Your task to perform on an android device: clear history in the chrome app Image 0: 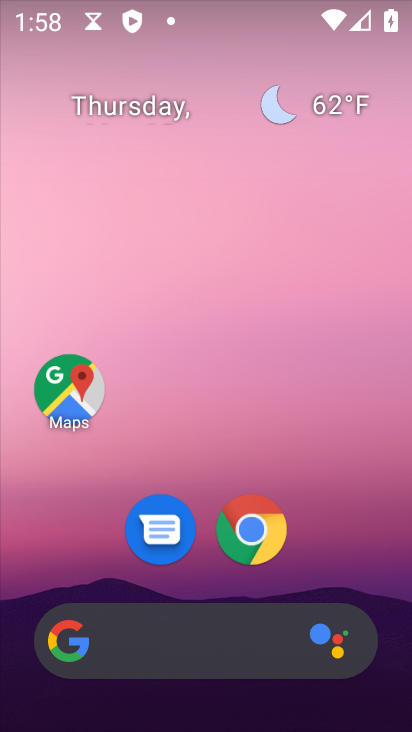
Step 0: click (254, 526)
Your task to perform on an android device: clear history in the chrome app Image 1: 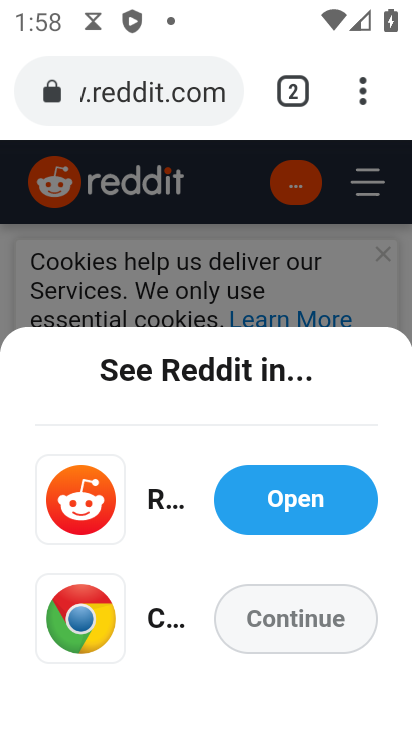
Step 1: click (364, 88)
Your task to perform on an android device: clear history in the chrome app Image 2: 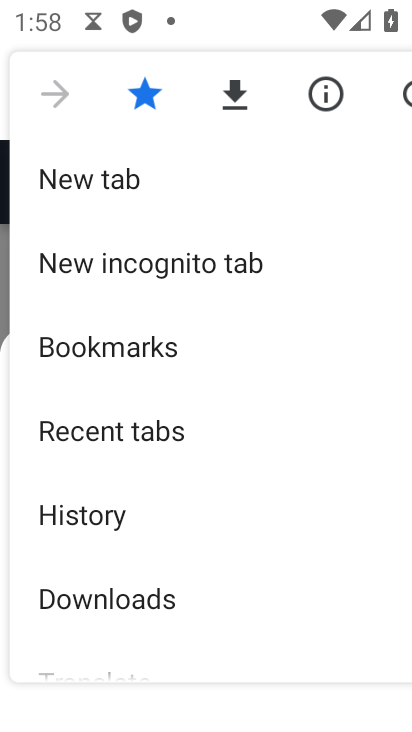
Step 2: click (119, 512)
Your task to perform on an android device: clear history in the chrome app Image 3: 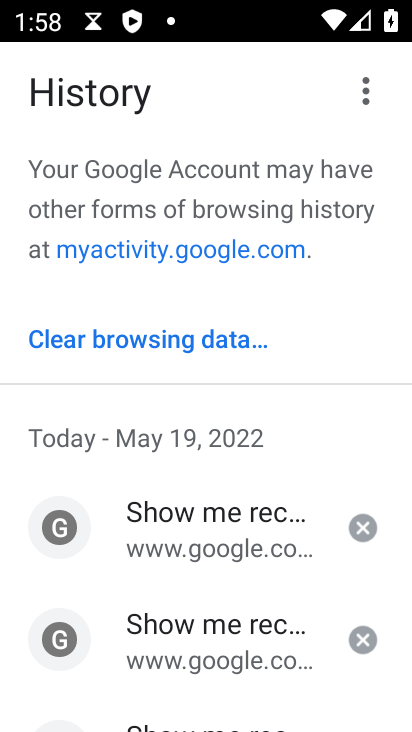
Step 3: click (133, 343)
Your task to perform on an android device: clear history in the chrome app Image 4: 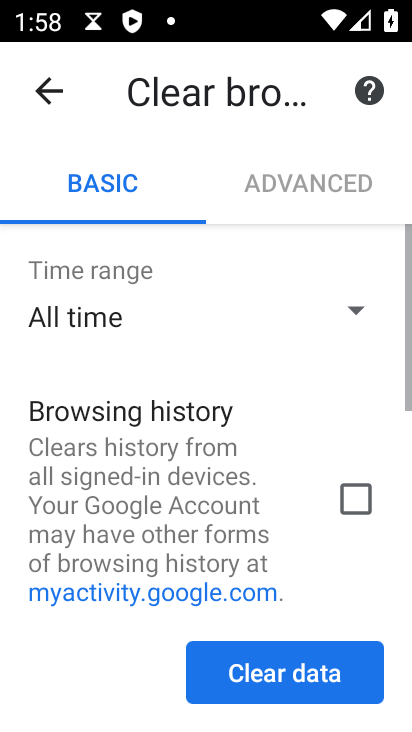
Step 4: click (354, 493)
Your task to perform on an android device: clear history in the chrome app Image 5: 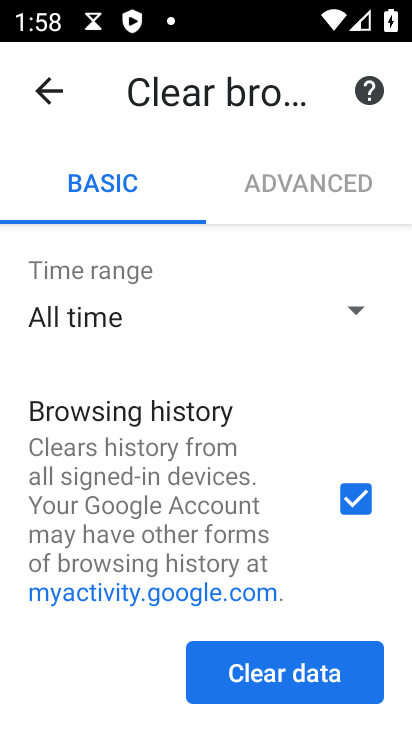
Step 5: click (280, 651)
Your task to perform on an android device: clear history in the chrome app Image 6: 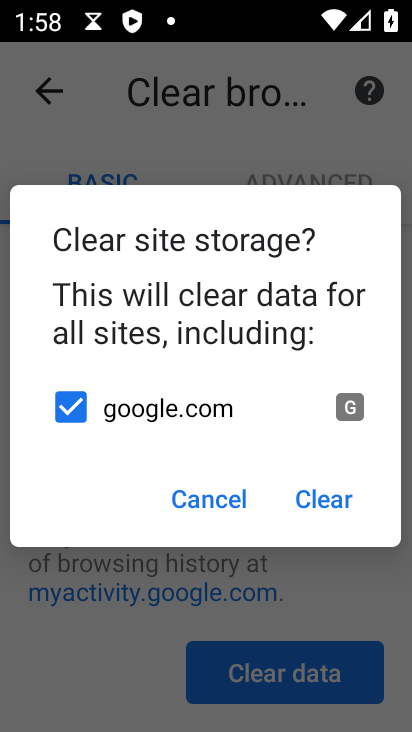
Step 6: click (326, 500)
Your task to perform on an android device: clear history in the chrome app Image 7: 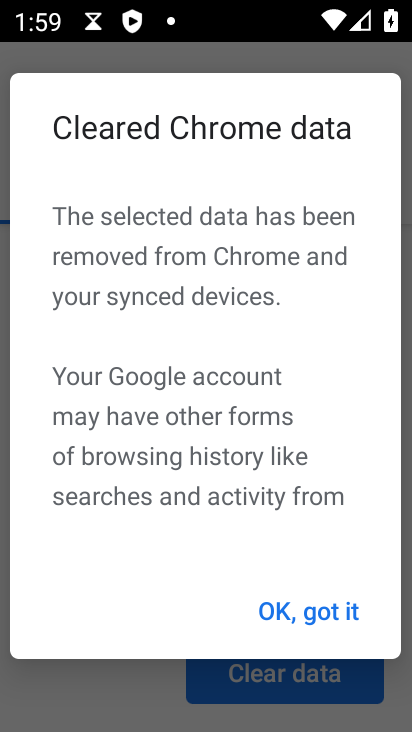
Step 7: click (318, 611)
Your task to perform on an android device: clear history in the chrome app Image 8: 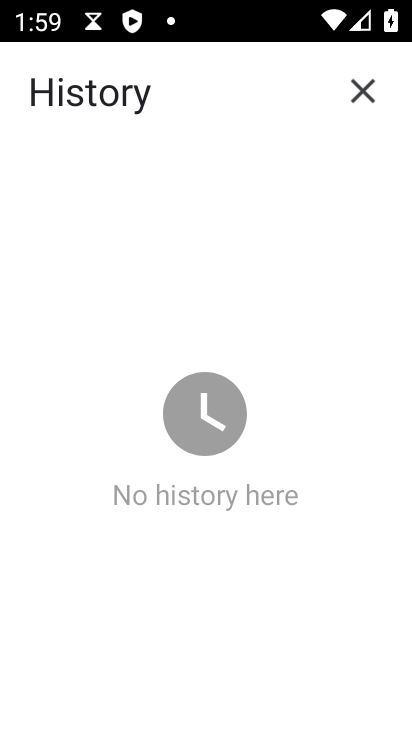
Step 8: task complete